Your task to perform on an android device: Go to notification settings Image 0: 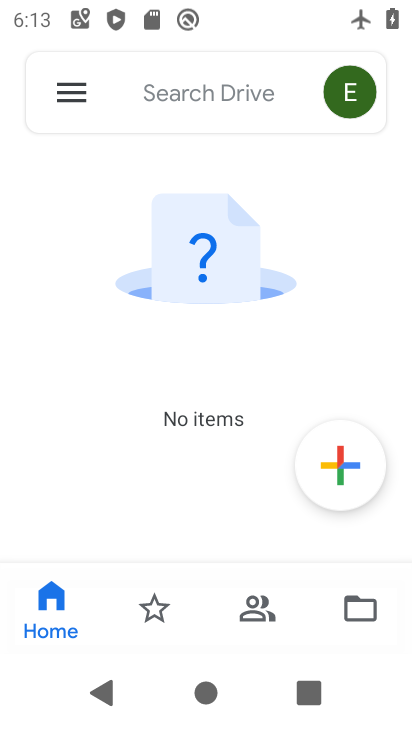
Step 0: drag from (167, 528) to (180, 176)
Your task to perform on an android device: Go to notification settings Image 1: 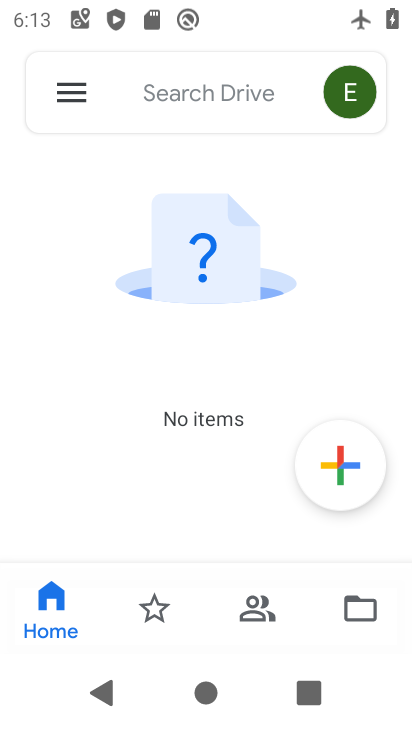
Step 1: click (73, 100)
Your task to perform on an android device: Go to notification settings Image 2: 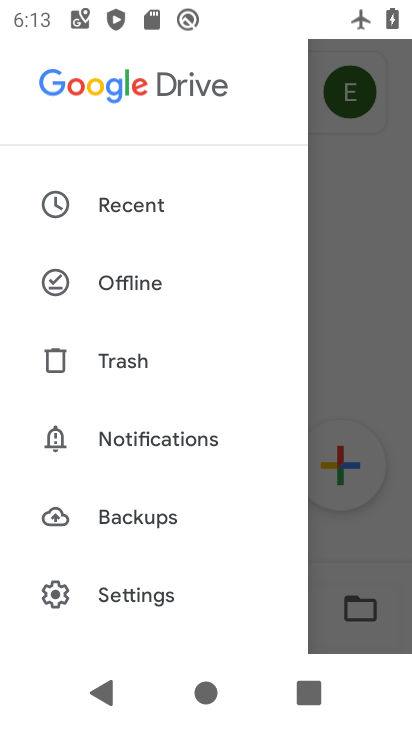
Step 2: drag from (150, 594) to (191, 281)
Your task to perform on an android device: Go to notification settings Image 3: 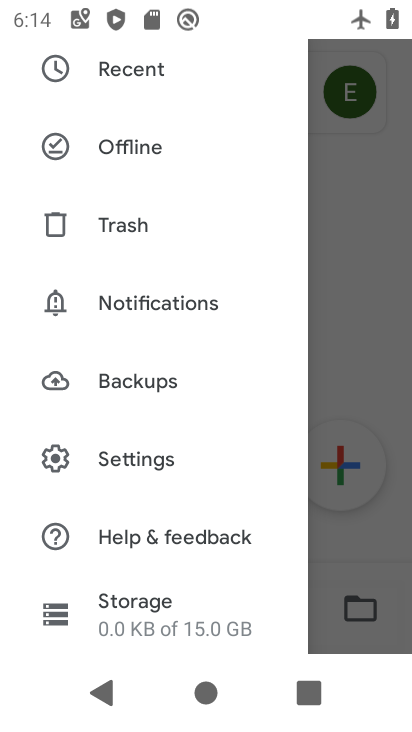
Step 3: click (132, 451)
Your task to perform on an android device: Go to notification settings Image 4: 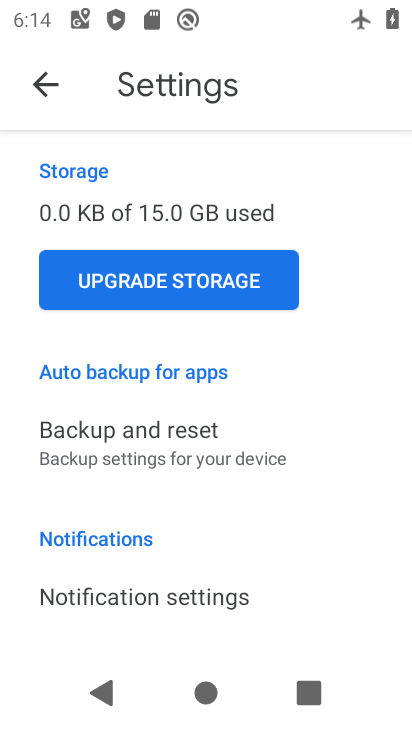
Step 4: drag from (197, 587) to (223, 187)
Your task to perform on an android device: Go to notification settings Image 5: 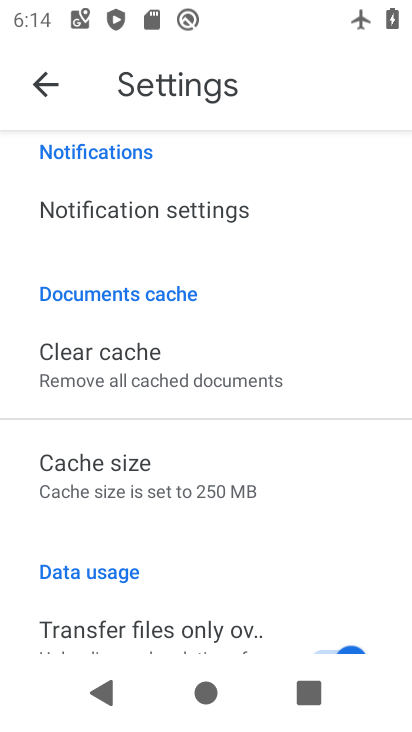
Step 5: drag from (161, 537) to (282, 230)
Your task to perform on an android device: Go to notification settings Image 6: 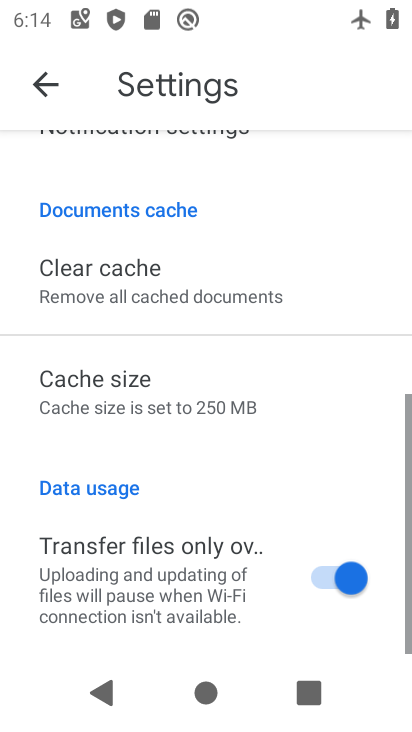
Step 6: drag from (116, 487) to (200, 218)
Your task to perform on an android device: Go to notification settings Image 7: 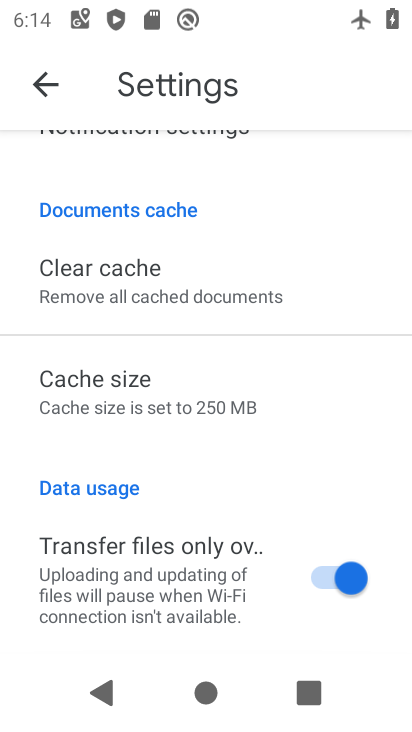
Step 7: drag from (144, 384) to (311, 196)
Your task to perform on an android device: Go to notification settings Image 8: 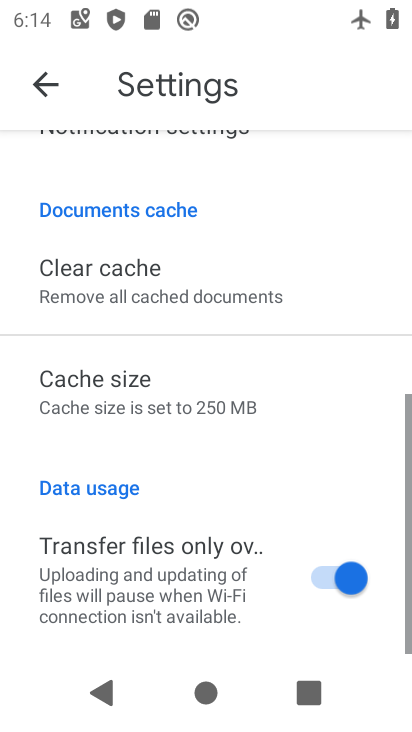
Step 8: drag from (247, 256) to (219, 729)
Your task to perform on an android device: Go to notification settings Image 9: 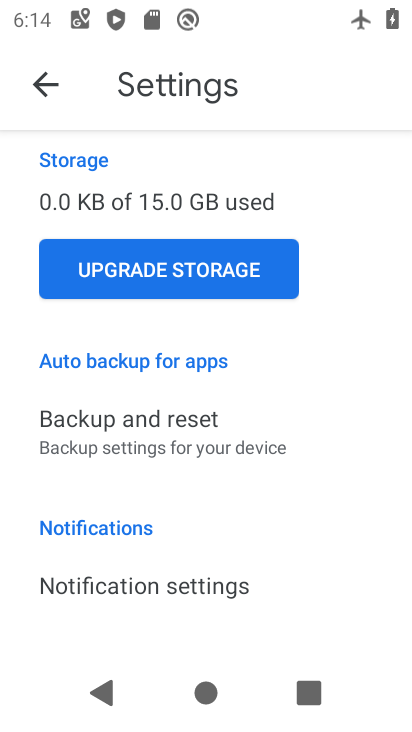
Step 9: drag from (261, 212) to (205, 700)
Your task to perform on an android device: Go to notification settings Image 10: 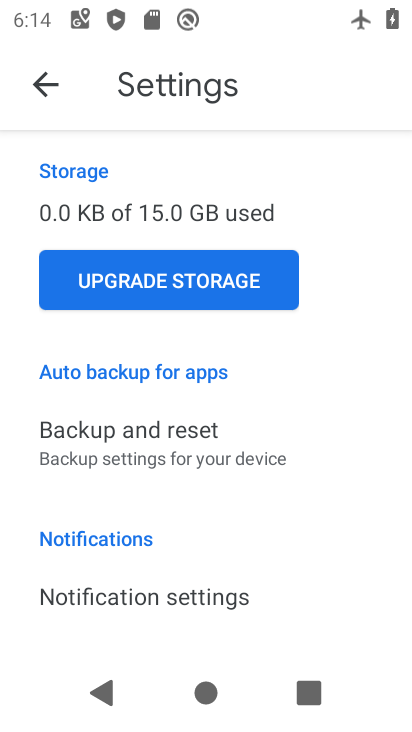
Step 10: drag from (171, 571) to (301, 252)
Your task to perform on an android device: Go to notification settings Image 11: 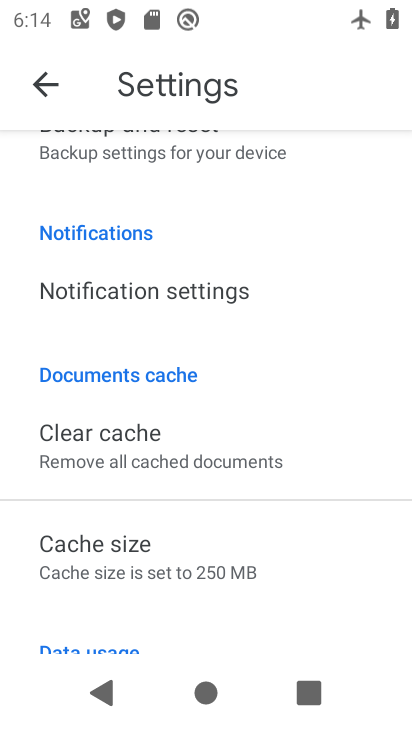
Step 11: click (118, 305)
Your task to perform on an android device: Go to notification settings Image 12: 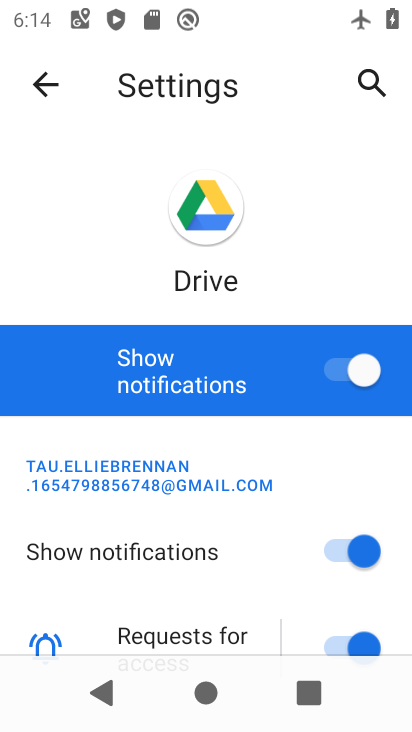
Step 12: press home button
Your task to perform on an android device: Go to notification settings Image 13: 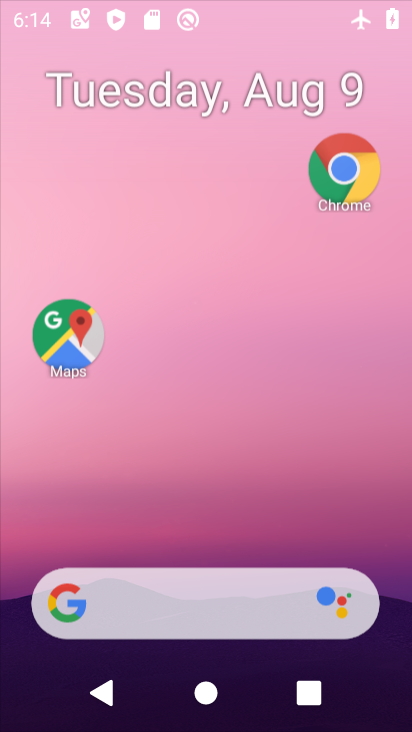
Step 13: drag from (241, 499) to (360, 65)
Your task to perform on an android device: Go to notification settings Image 14: 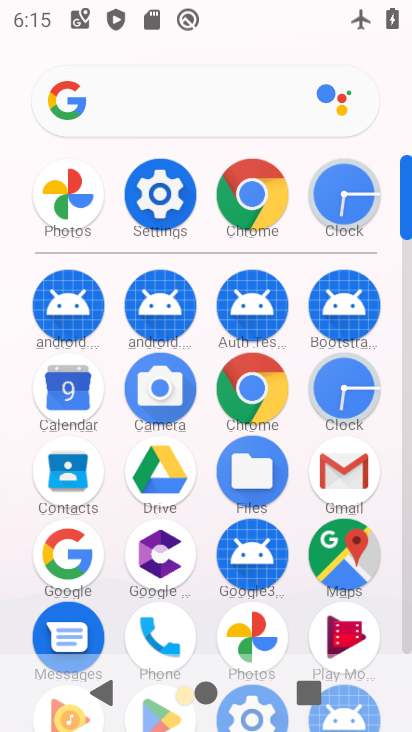
Step 14: drag from (200, 522) to (218, 168)
Your task to perform on an android device: Go to notification settings Image 15: 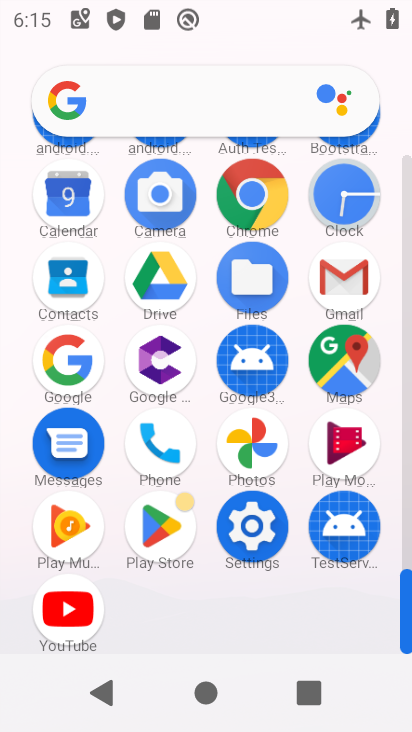
Step 15: click (253, 524)
Your task to perform on an android device: Go to notification settings Image 16: 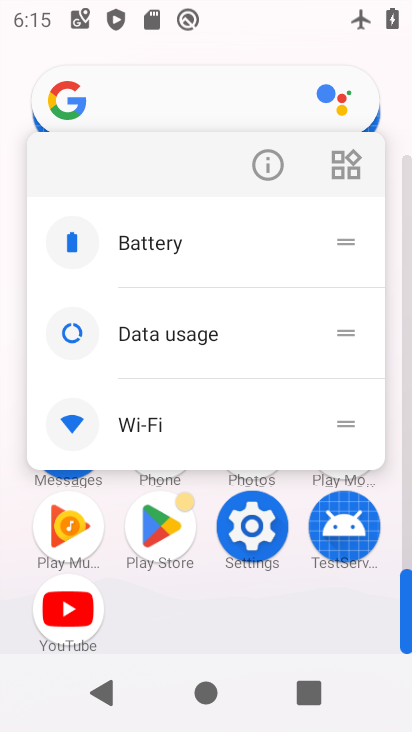
Step 16: click (261, 166)
Your task to perform on an android device: Go to notification settings Image 17: 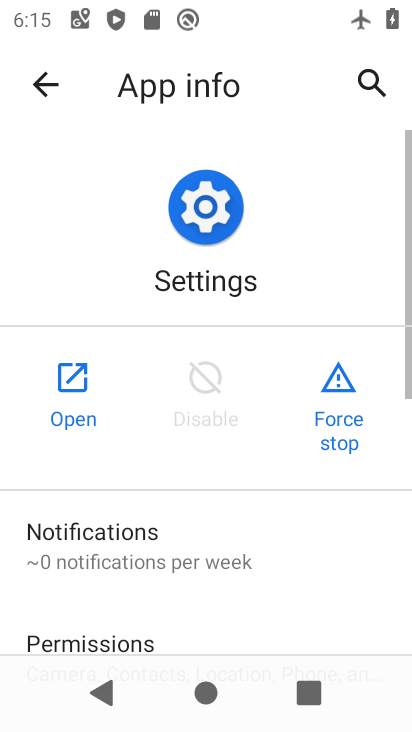
Step 17: click (71, 362)
Your task to perform on an android device: Go to notification settings Image 18: 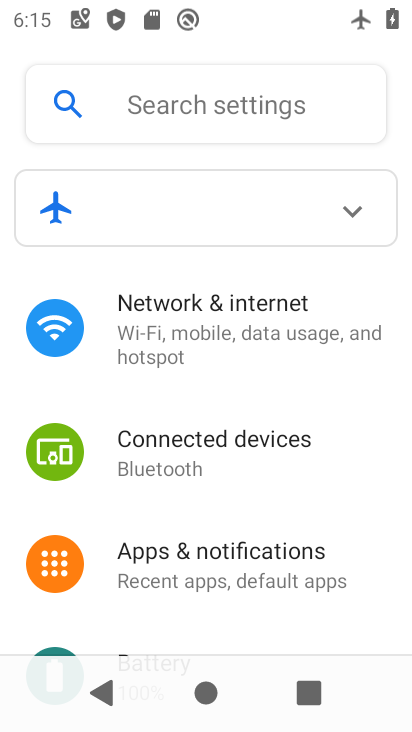
Step 18: drag from (168, 528) to (234, 204)
Your task to perform on an android device: Go to notification settings Image 19: 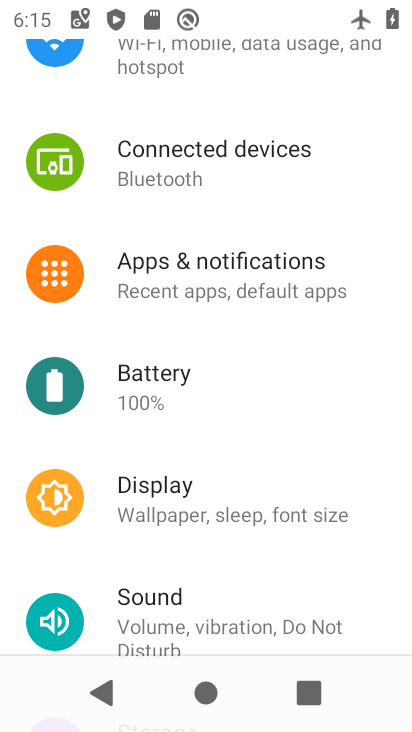
Step 19: click (201, 290)
Your task to perform on an android device: Go to notification settings Image 20: 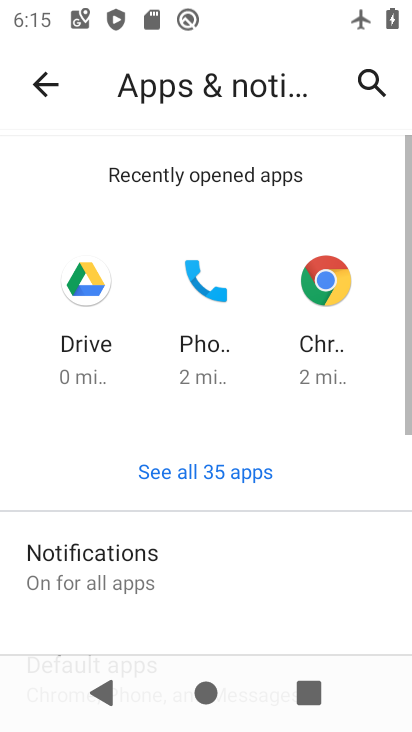
Step 20: drag from (145, 593) to (229, 233)
Your task to perform on an android device: Go to notification settings Image 21: 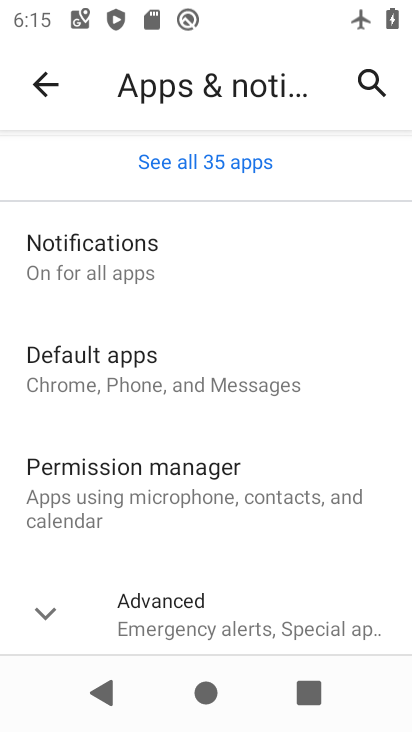
Step 21: drag from (197, 416) to (209, 291)
Your task to perform on an android device: Go to notification settings Image 22: 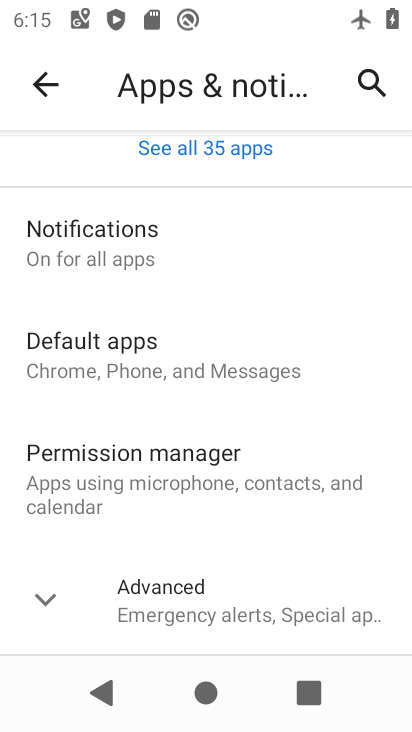
Step 22: drag from (166, 231) to (202, 545)
Your task to perform on an android device: Go to notification settings Image 23: 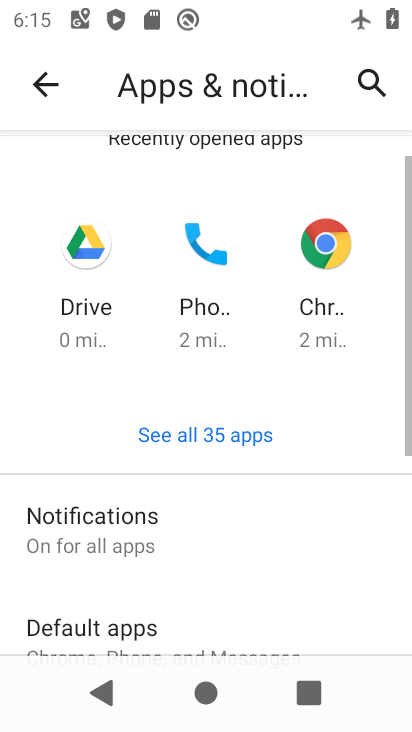
Step 23: drag from (225, 566) to (322, 205)
Your task to perform on an android device: Go to notification settings Image 24: 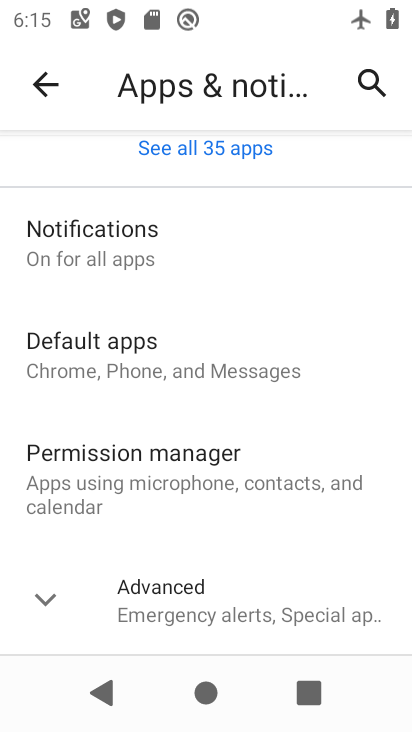
Step 24: drag from (186, 603) to (213, 350)
Your task to perform on an android device: Go to notification settings Image 25: 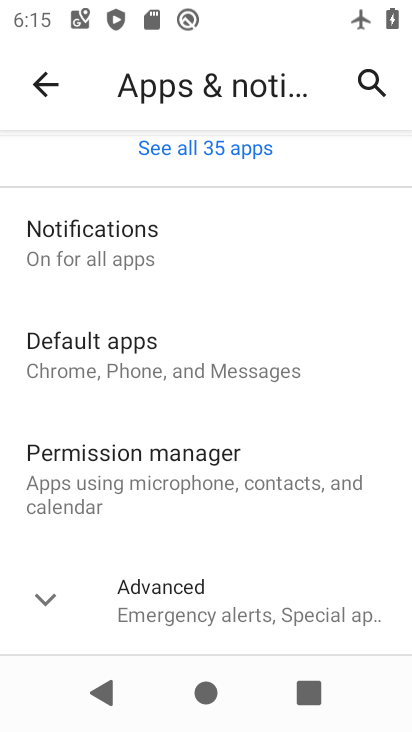
Step 25: drag from (180, 514) to (281, 287)
Your task to perform on an android device: Go to notification settings Image 26: 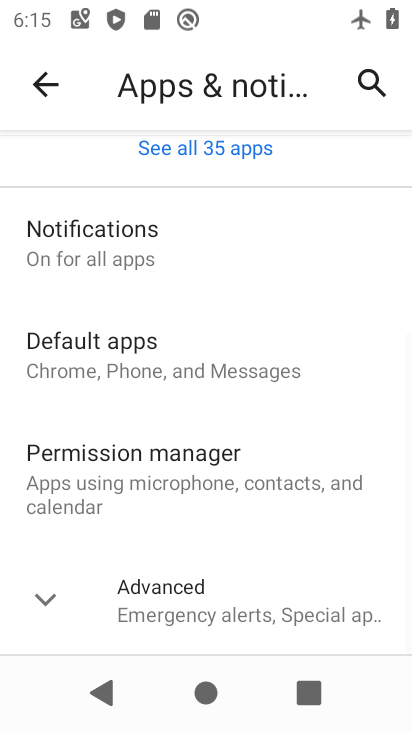
Step 26: drag from (264, 219) to (252, 674)
Your task to perform on an android device: Go to notification settings Image 27: 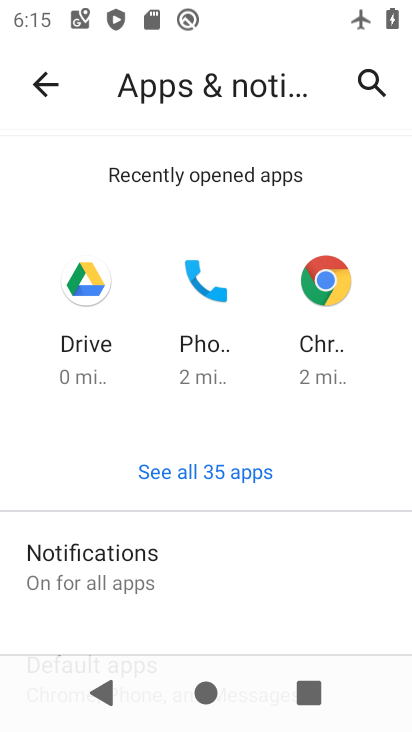
Step 27: drag from (239, 483) to (239, 259)
Your task to perform on an android device: Go to notification settings Image 28: 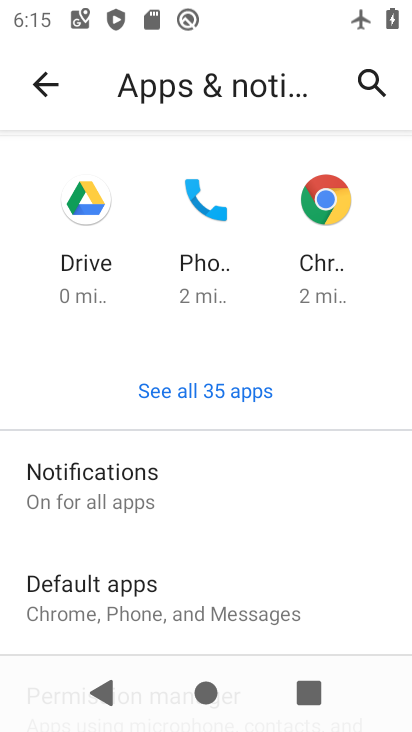
Step 28: drag from (208, 548) to (254, 384)
Your task to perform on an android device: Go to notification settings Image 29: 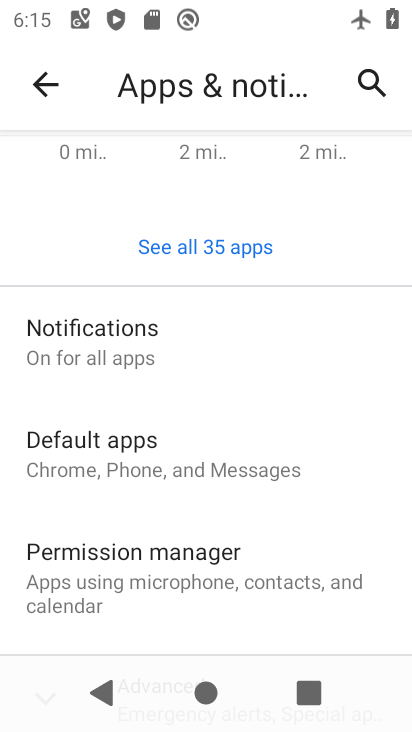
Step 29: drag from (223, 505) to (233, 261)
Your task to perform on an android device: Go to notification settings Image 30: 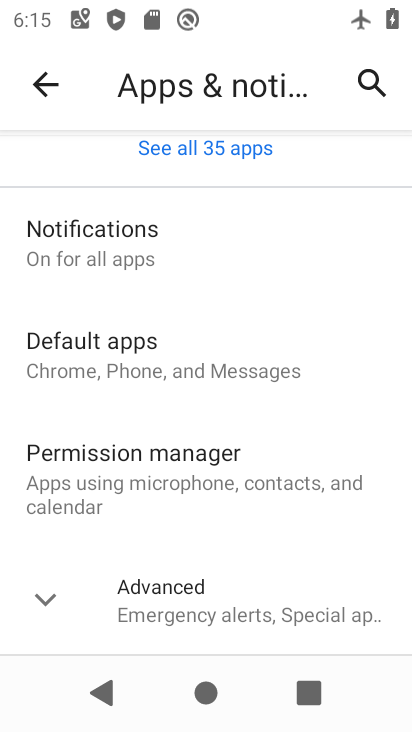
Step 30: drag from (198, 604) to (209, 530)
Your task to perform on an android device: Go to notification settings Image 31: 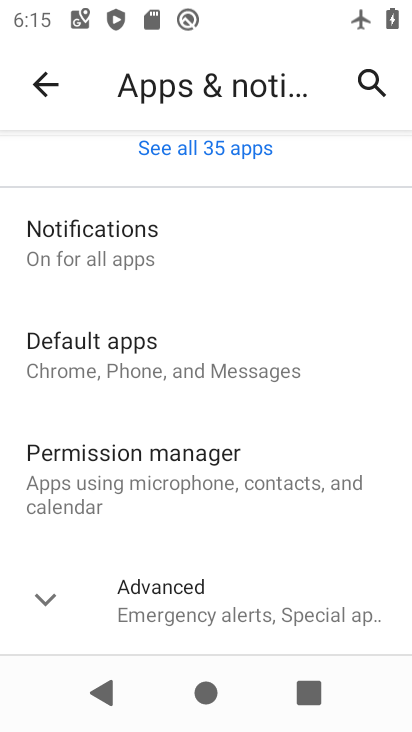
Step 31: click (219, 595)
Your task to perform on an android device: Go to notification settings Image 32: 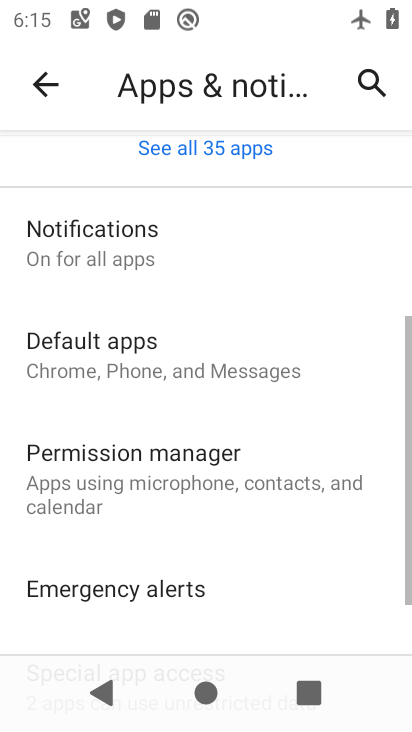
Step 32: drag from (176, 584) to (271, 147)
Your task to perform on an android device: Go to notification settings Image 33: 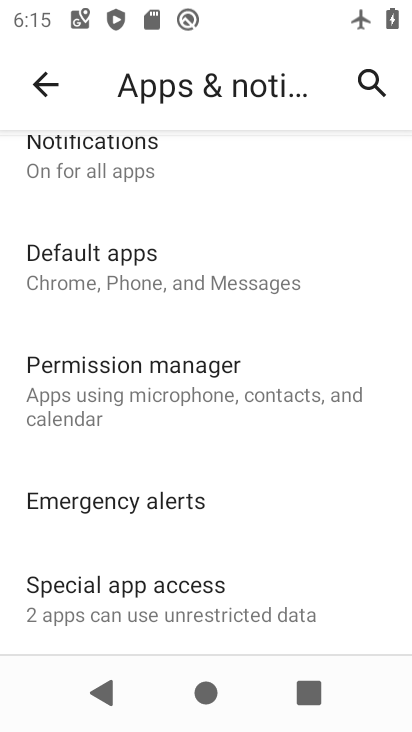
Step 33: drag from (212, 564) to (279, 218)
Your task to perform on an android device: Go to notification settings Image 34: 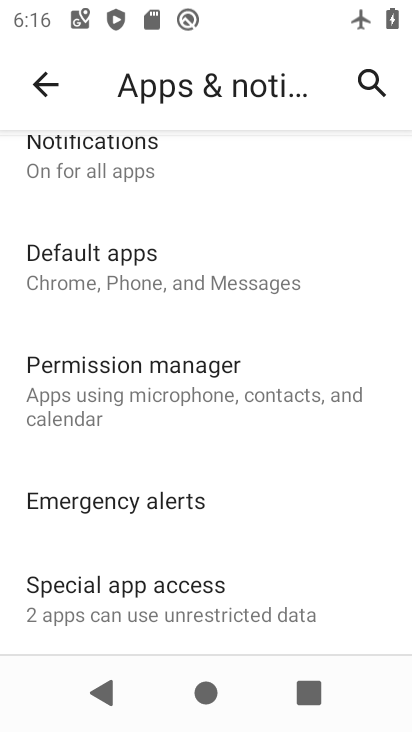
Step 34: drag from (209, 237) to (235, 614)
Your task to perform on an android device: Go to notification settings Image 35: 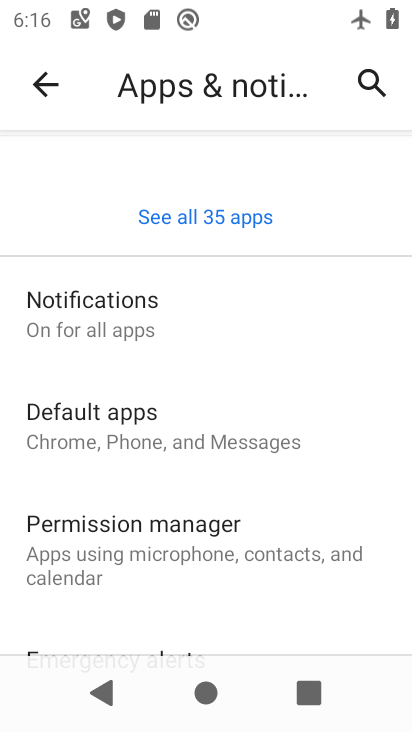
Step 35: click (181, 290)
Your task to perform on an android device: Go to notification settings Image 36: 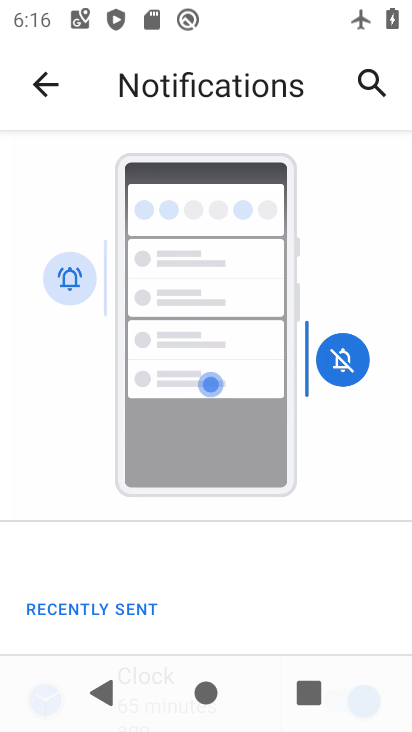
Step 36: drag from (214, 587) to (312, 91)
Your task to perform on an android device: Go to notification settings Image 37: 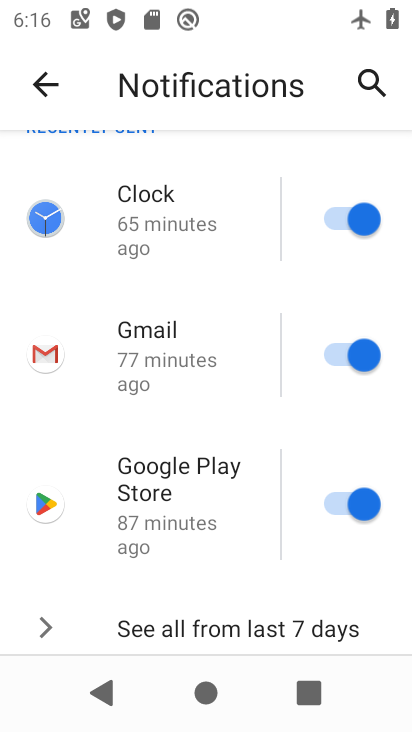
Step 37: drag from (215, 478) to (265, 247)
Your task to perform on an android device: Go to notification settings Image 38: 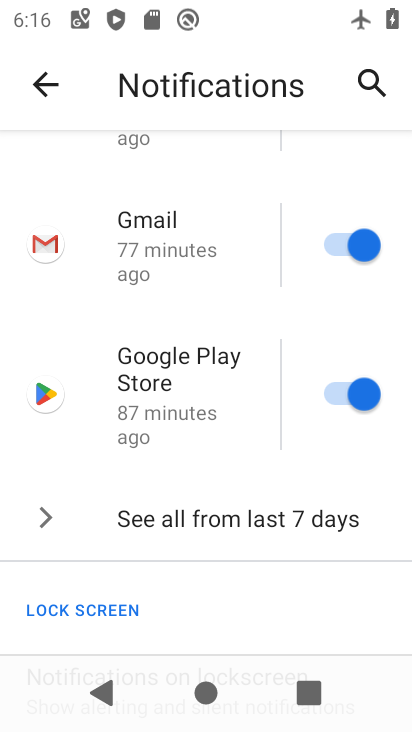
Step 38: drag from (147, 554) to (191, 413)
Your task to perform on an android device: Go to notification settings Image 39: 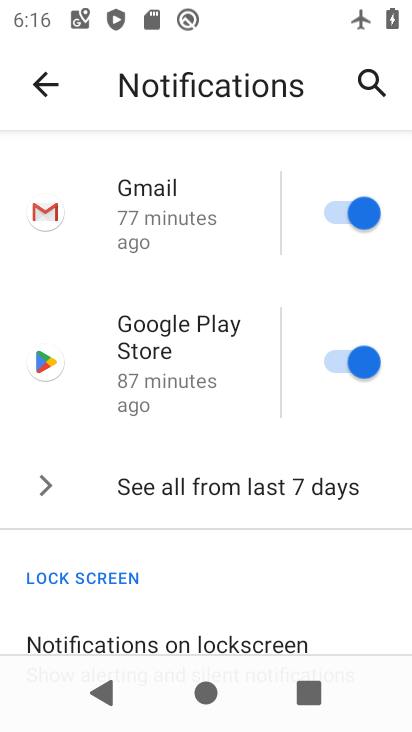
Step 39: drag from (202, 574) to (263, 229)
Your task to perform on an android device: Go to notification settings Image 40: 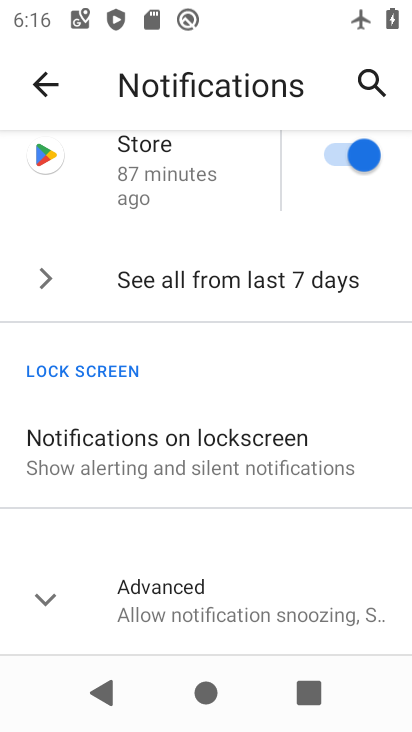
Step 40: drag from (208, 561) to (258, 258)
Your task to perform on an android device: Go to notification settings Image 41: 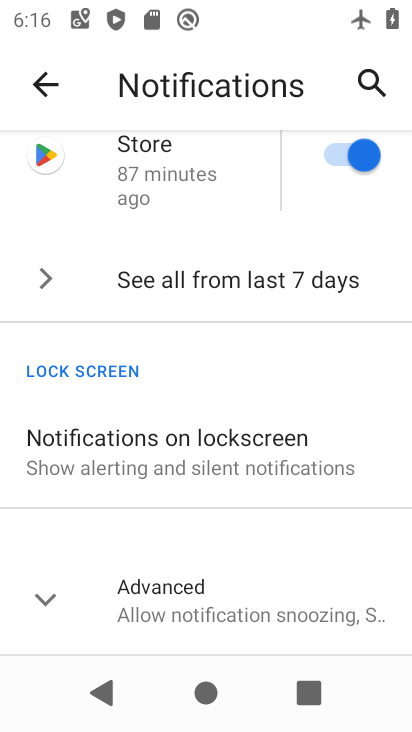
Step 41: click (163, 615)
Your task to perform on an android device: Go to notification settings Image 42: 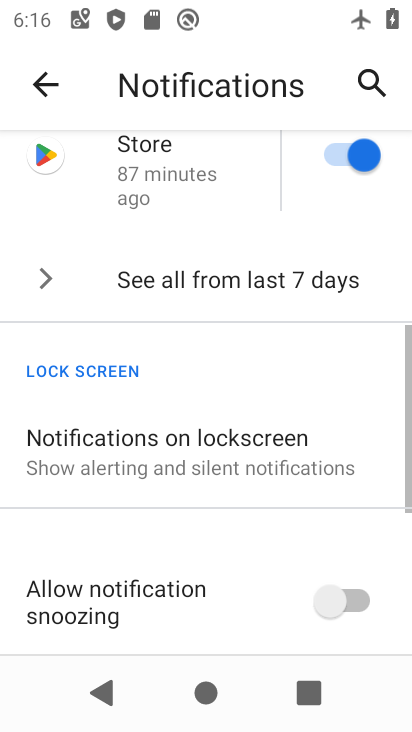
Step 42: task complete